Your task to perform on an android device: Turn off the flashlight Image 0: 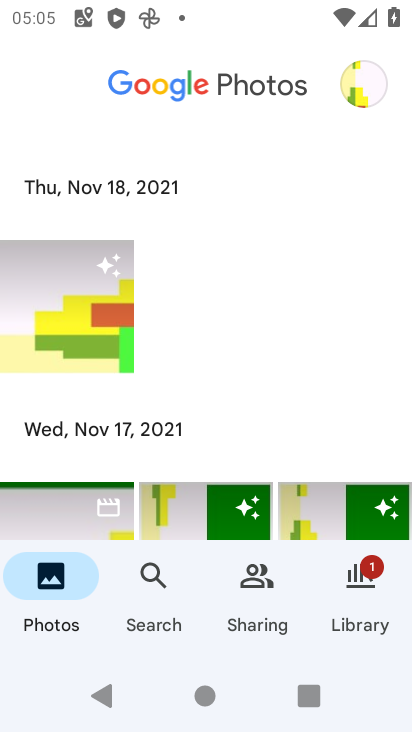
Step 0: press home button
Your task to perform on an android device: Turn off the flashlight Image 1: 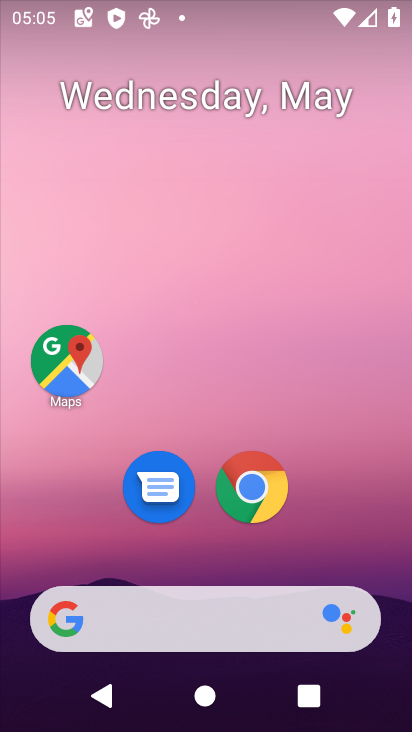
Step 1: drag from (333, 561) to (281, 112)
Your task to perform on an android device: Turn off the flashlight Image 2: 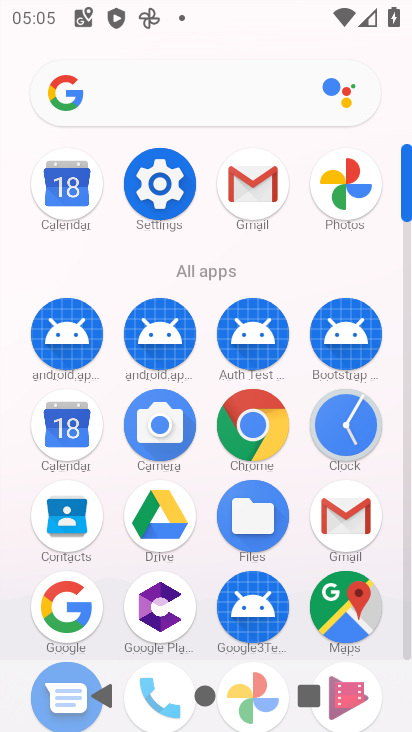
Step 2: click (143, 189)
Your task to perform on an android device: Turn off the flashlight Image 3: 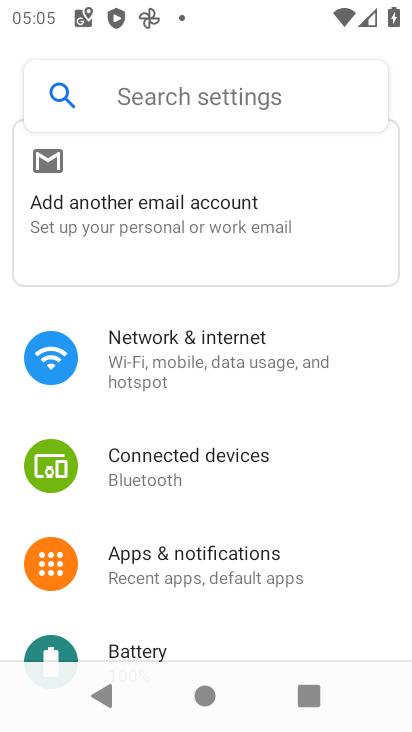
Step 3: click (176, 386)
Your task to perform on an android device: Turn off the flashlight Image 4: 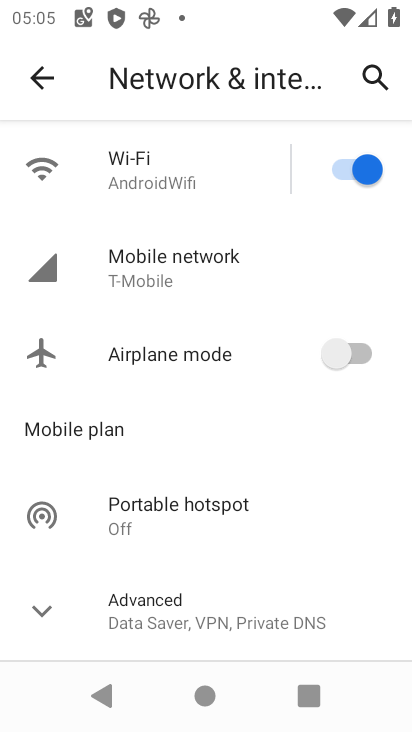
Step 4: task complete